Your task to perform on an android device: What's the weather? Image 0: 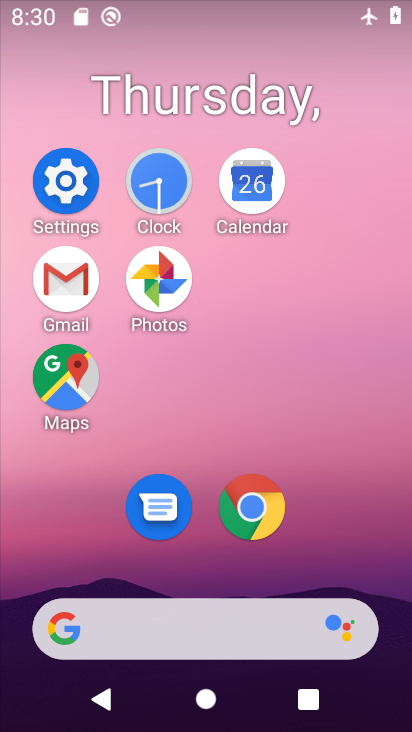
Step 0: drag from (353, 544) to (334, 45)
Your task to perform on an android device: What's the weather? Image 1: 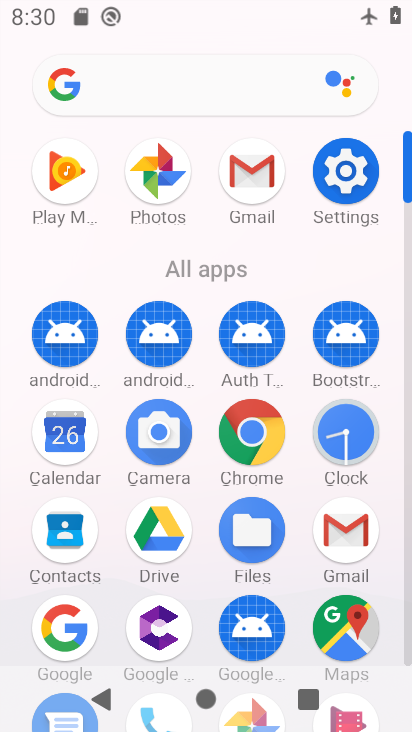
Step 1: drag from (76, 627) to (192, 354)
Your task to perform on an android device: What's the weather? Image 2: 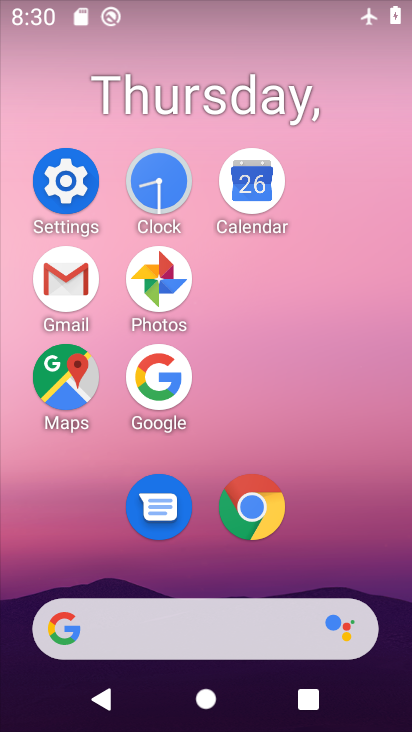
Step 2: click (166, 363)
Your task to perform on an android device: What's the weather? Image 3: 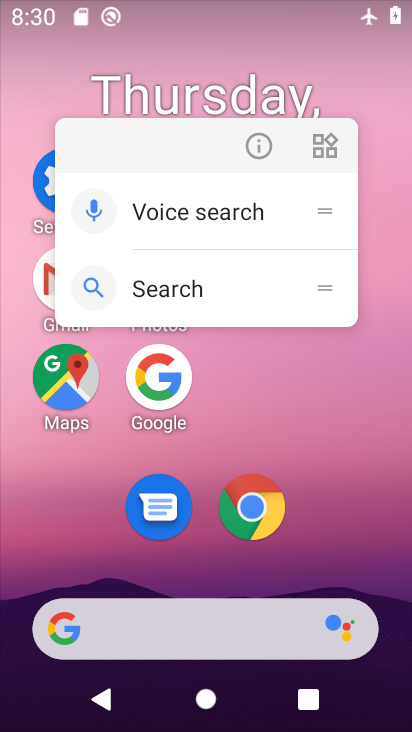
Step 3: click (152, 358)
Your task to perform on an android device: What's the weather? Image 4: 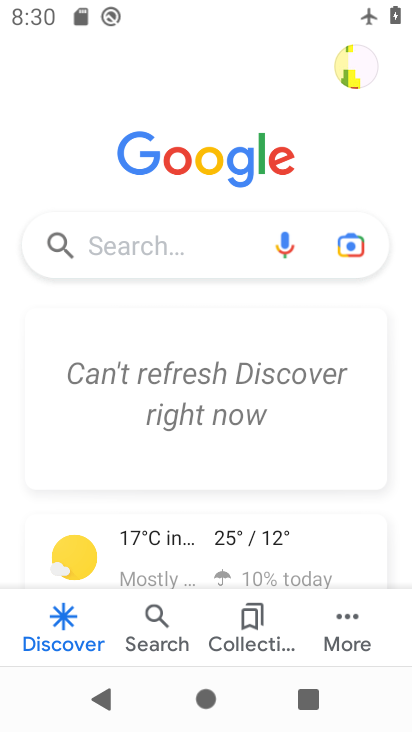
Step 4: click (150, 540)
Your task to perform on an android device: What's the weather? Image 5: 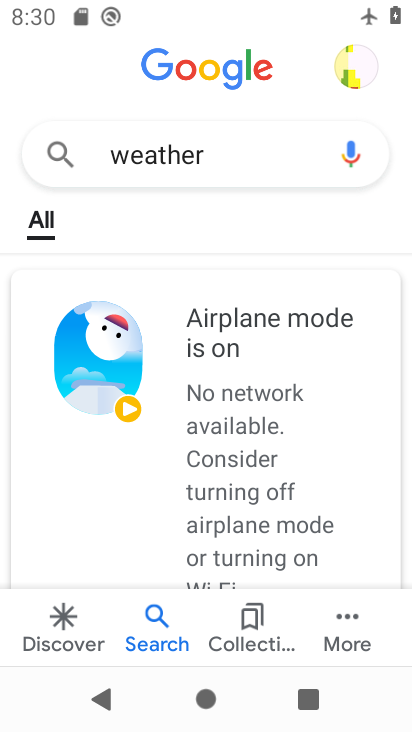
Step 5: task complete